Your task to perform on an android device: Open Google Maps Image 0: 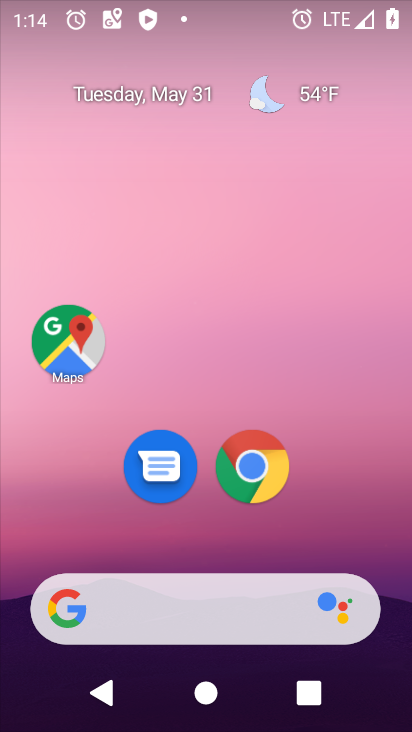
Step 0: click (63, 347)
Your task to perform on an android device: Open Google Maps Image 1: 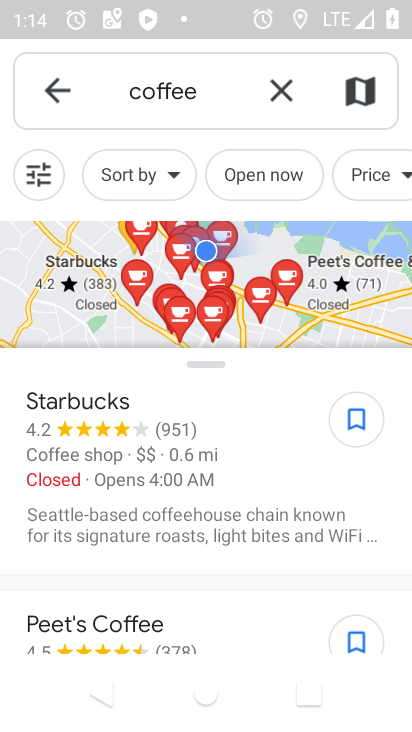
Step 1: task complete